Your task to perform on an android device: Go to Wikipedia Image 0: 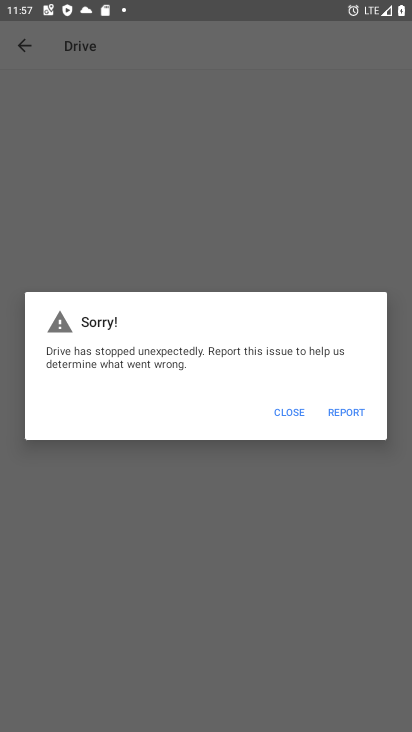
Step 0: press home button
Your task to perform on an android device: Go to Wikipedia Image 1: 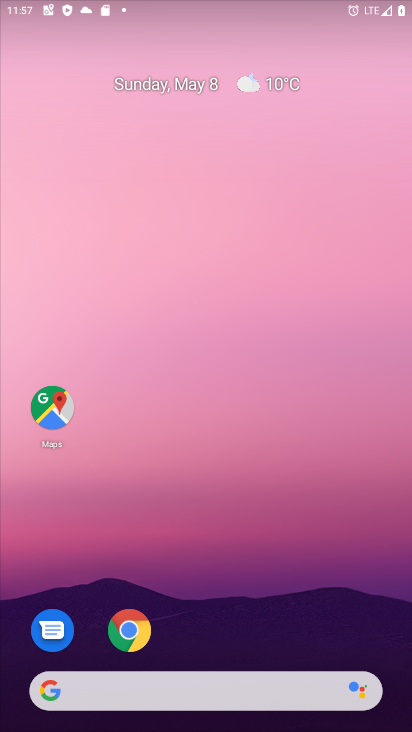
Step 1: drag from (373, 633) to (234, 75)
Your task to perform on an android device: Go to Wikipedia Image 2: 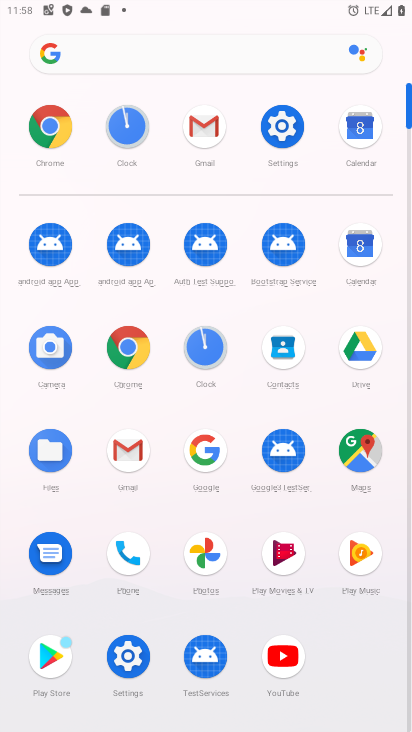
Step 2: click (122, 343)
Your task to perform on an android device: Go to Wikipedia Image 3: 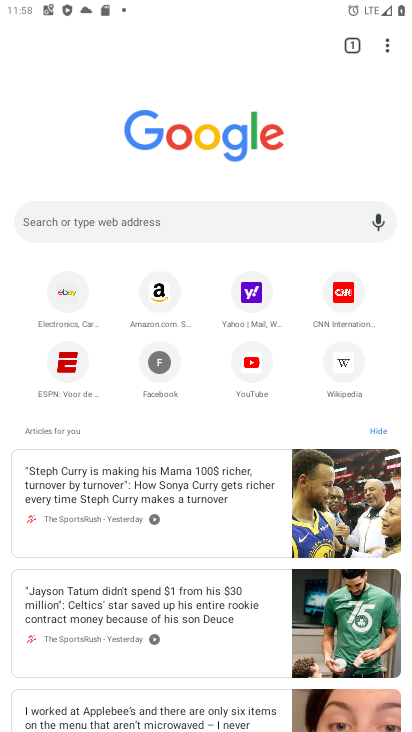
Step 3: click (191, 217)
Your task to perform on an android device: Go to Wikipedia Image 4: 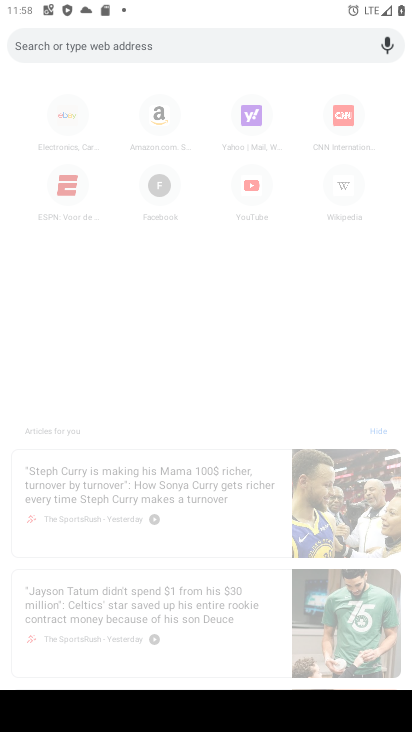
Step 4: type "wikipedia"
Your task to perform on an android device: Go to Wikipedia Image 5: 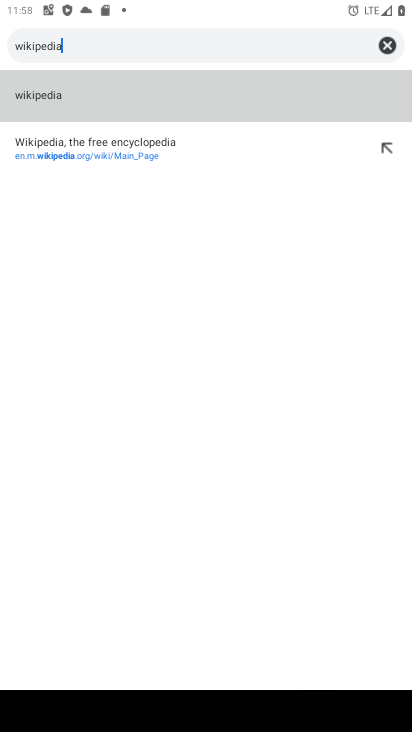
Step 5: click (73, 82)
Your task to perform on an android device: Go to Wikipedia Image 6: 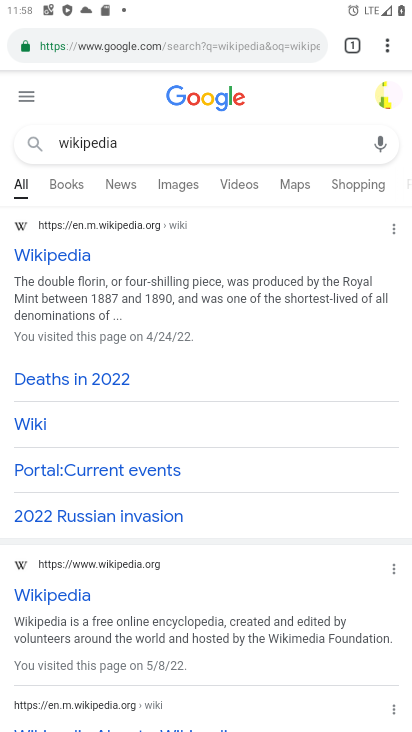
Step 6: click (45, 256)
Your task to perform on an android device: Go to Wikipedia Image 7: 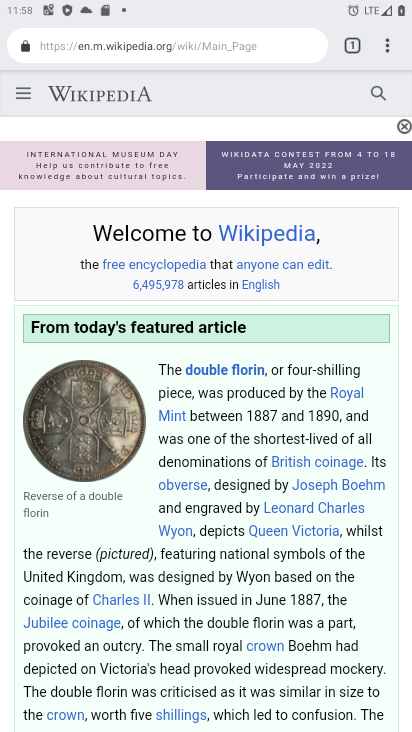
Step 7: task complete